Your task to perform on an android device: Go to internet settings Image 0: 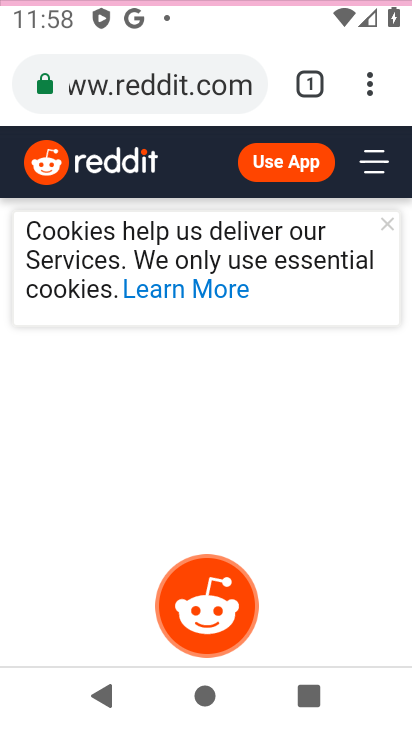
Step 0: press home button
Your task to perform on an android device: Go to internet settings Image 1: 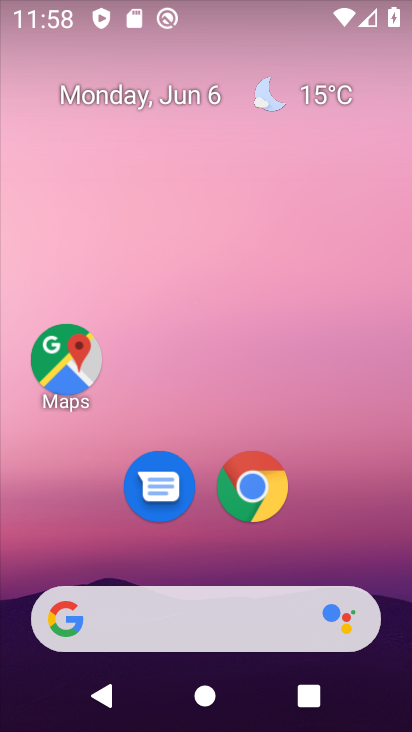
Step 1: drag from (331, 439) to (150, 46)
Your task to perform on an android device: Go to internet settings Image 2: 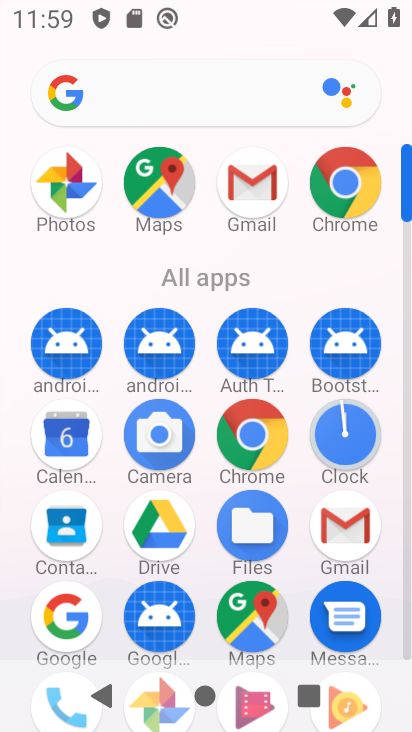
Step 2: drag from (198, 553) to (200, 222)
Your task to perform on an android device: Go to internet settings Image 3: 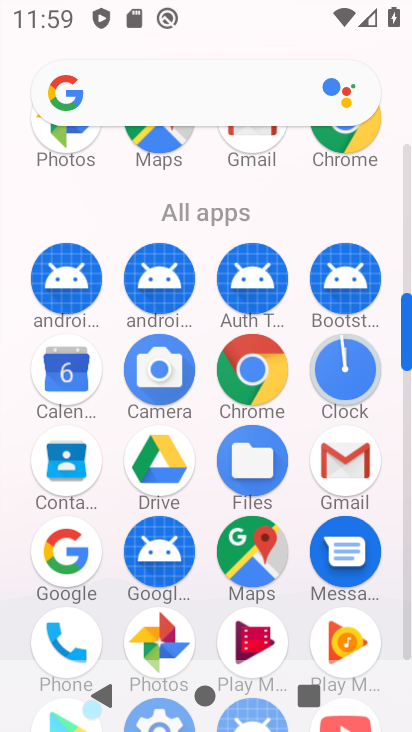
Step 3: drag from (198, 631) to (187, 185)
Your task to perform on an android device: Go to internet settings Image 4: 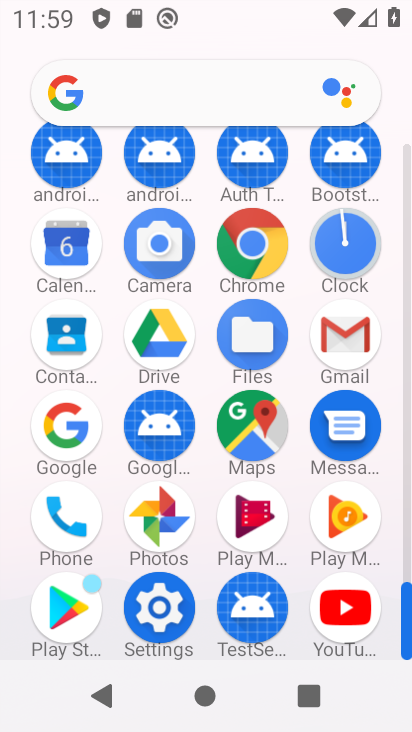
Step 4: click (163, 599)
Your task to perform on an android device: Go to internet settings Image 5: 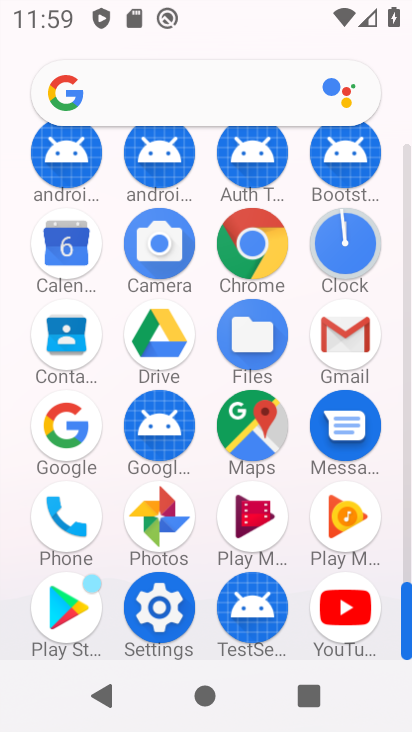
Step 5: click (153, 633)
Your task to perform on an android device: Go to internet settings Image 6: 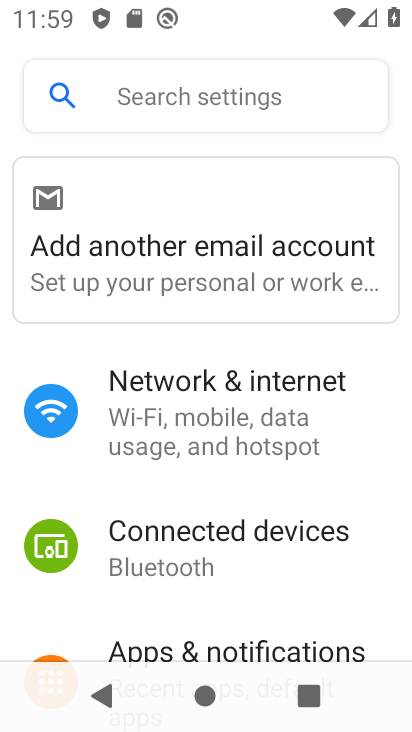
Step 6: click (229, 426)
Your task to perform on an android device: Go to internet settings Image 7: 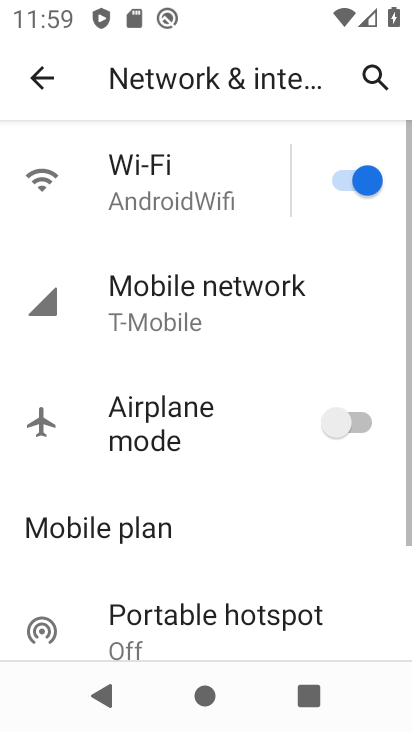
Step 7: task complete